Your task to perform on an android device: turn off picture-in-picture Image 0: 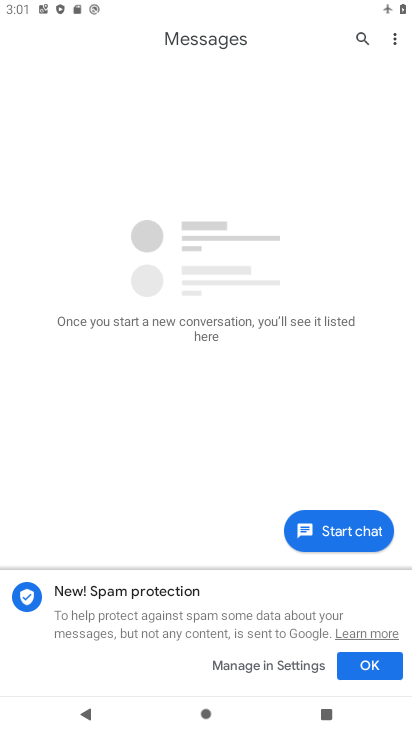
Step 0: press home button
Your task to perform on an android device: turn off picture-in-picture Image 1: 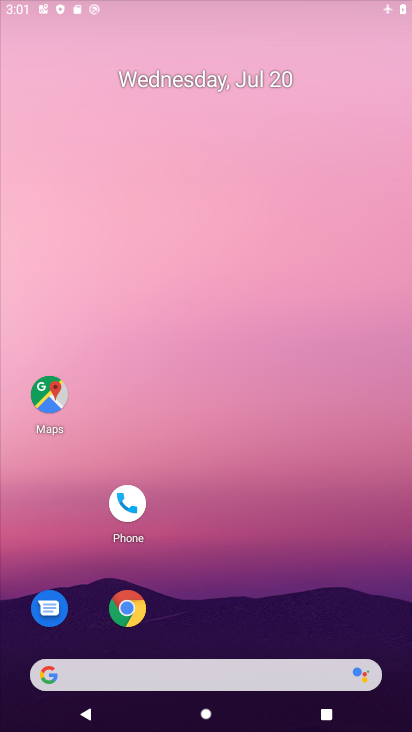
Step 1: drag from (262, 622) to (255, 141)
Your task to perform on an android device: turn off picture-in-picture Image 2: 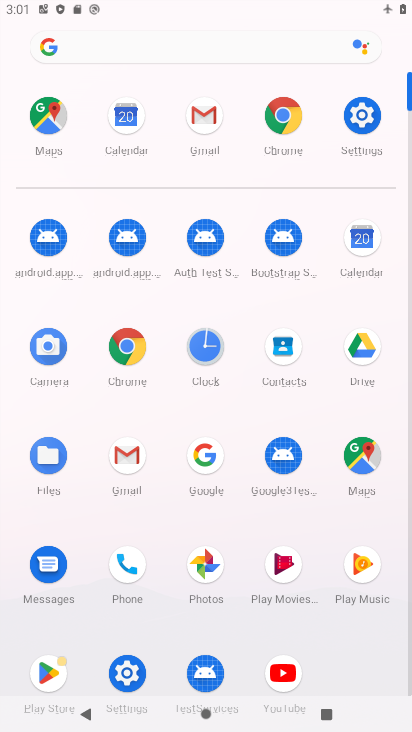
Step 2: click (129, 350)
Your task to perform on an android device: turn off picture-in-picture Image 3: 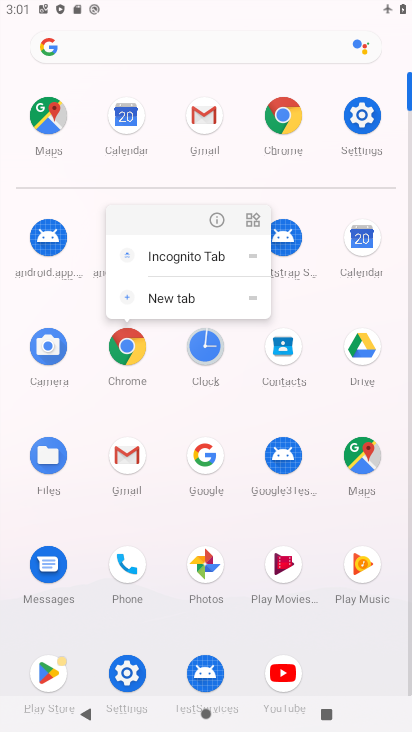
Step 3: click (220, 218)
Your task to perform on an android device: turn off picture-in-picture Image 4: 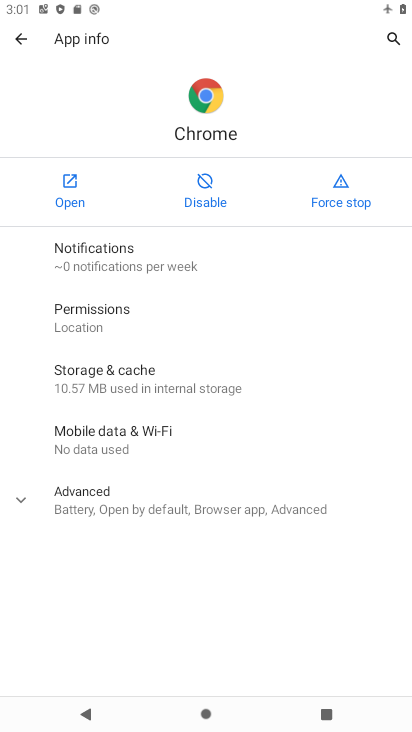
Step 4: click (100, 492)
Your task to perform on an android device: turn off picture-in-picture Image 5: 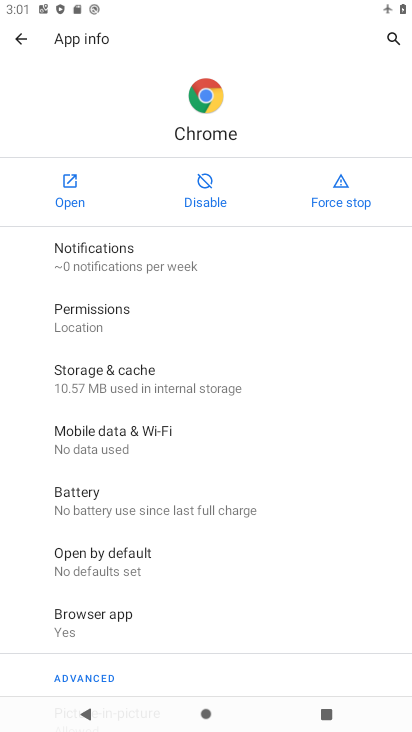
Step 5: drag from (265, 599) to (334, 284)
Your task to perform on an android device: turn off picture-in-picture Image 6: 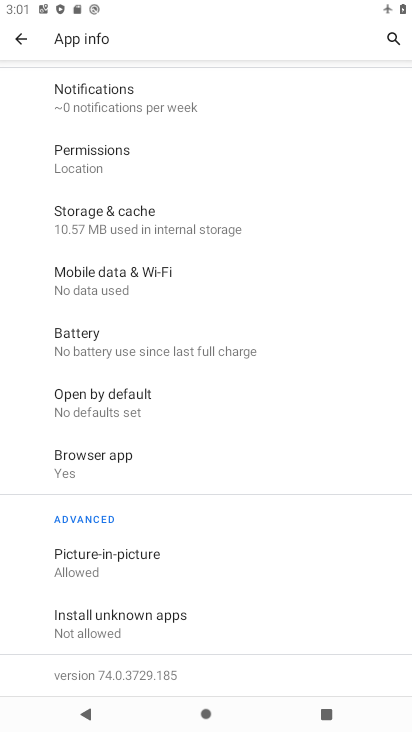
Step 6: click (111, 571)
Your task to perform on an android device: turn off picture-in-picture Image 7: 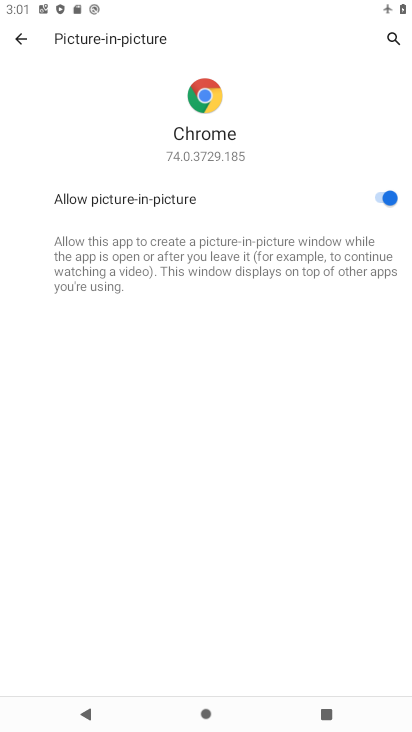
Step 7: click (392, 197)
Your task to perform on an android device: turn off picture-in-picture Image 8: 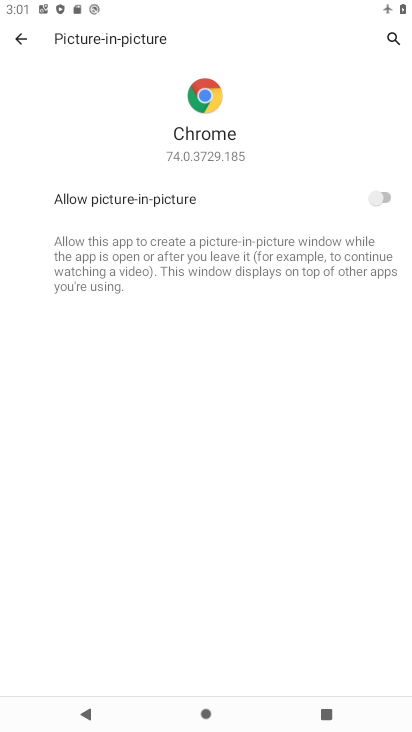
Step 8: task complete